Your task to perform on an android device: Go to battery settings Image 0: 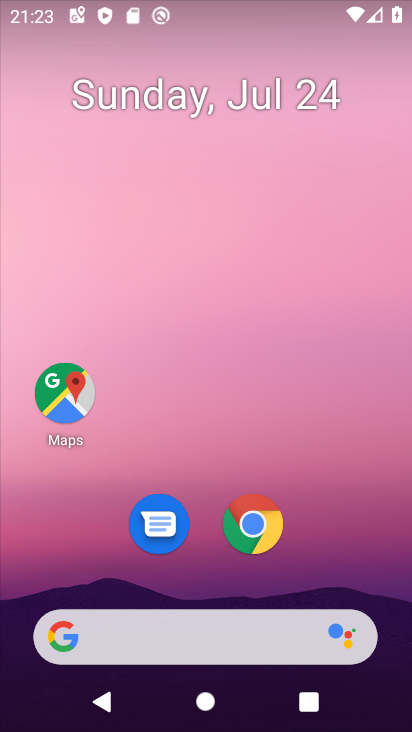
Step 0: drag from (175, 608) to (301, 69)
Your task to perform on an android device: Go to battery settings Image 1: 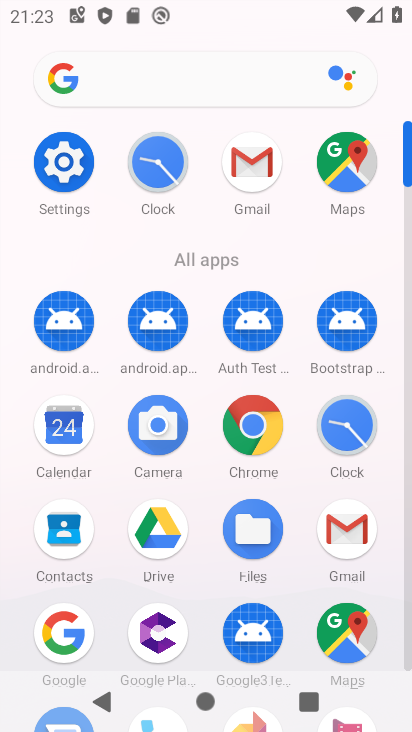
Step 1: click (69, 173)
Your task to perform on an android device: Go to battery settings Image 2: 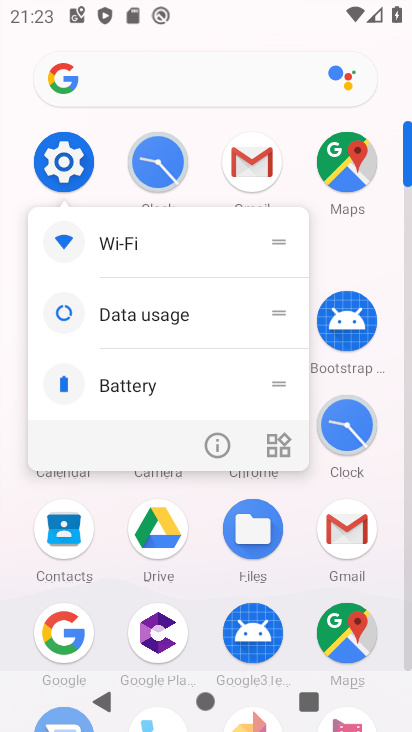
Step 2: click (64, 164)
Your task to perform on an android device: Go to battery settings Image 3: 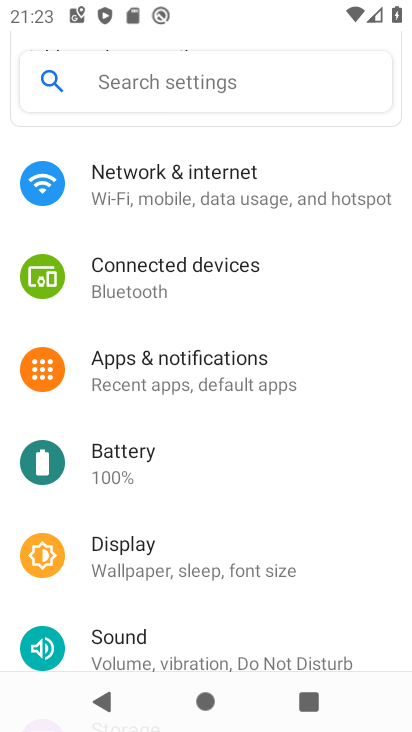
Step 3: click (137, 460)
Your task to perform on an android device: Go to battery settings Image 4: 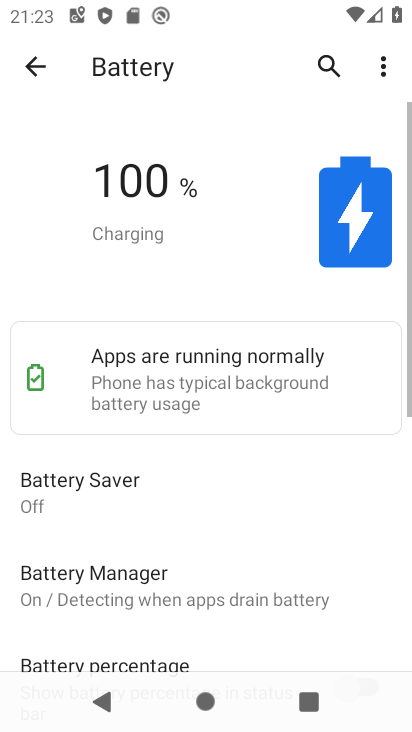
Step 4: task complete